Your task to perform on an android device: open app "Flipkart Online Shopping App" (install if not already installed) Image 0: 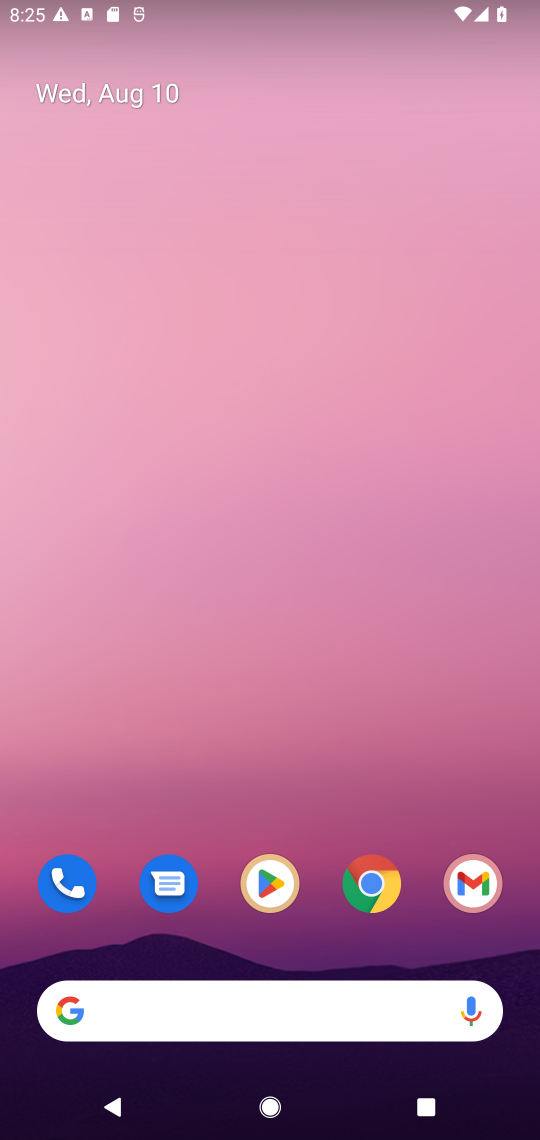
Step 0: drag from (305, 953) to (281, 200)
Your task to perform on an android device: open app "Flipkart Online Shopping App" (install if not already installed) Image 1: 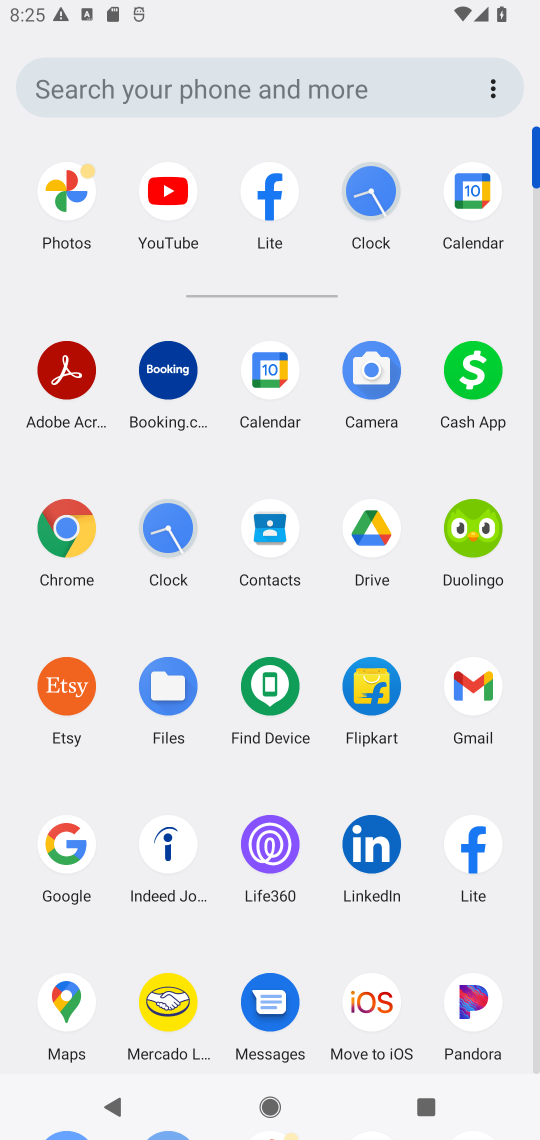
Step 1: drag from (237, 896) to (234, 367)
Your task to perform on an android device: open app "Flipkart Online Shopping App" (install if not already installed) Image 2: 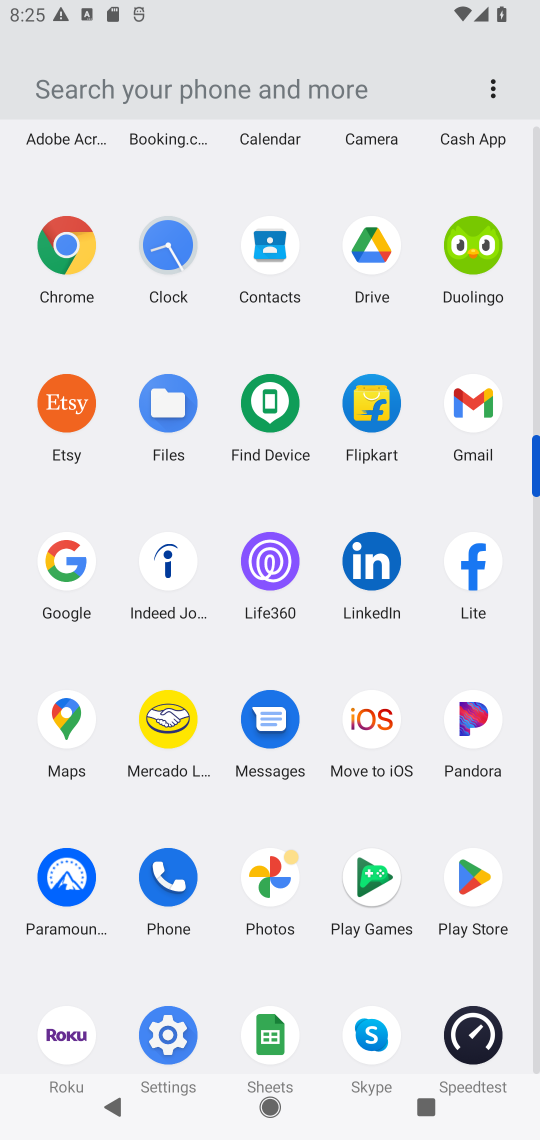
Step 2: click (471, 874)
Your task to perform on an android device: open app "Flipkart Online Shopping App" (install if not already installed) Image 3: 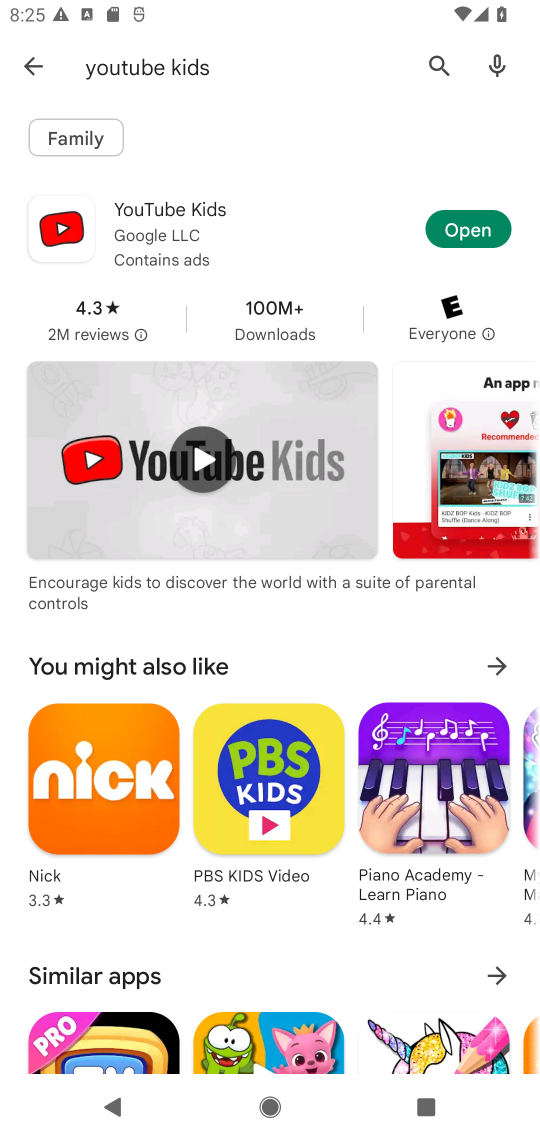
Step 3: click (439, 60)
Your task to perform on an android device: open app "Flipkart Online Shopping App" (install if not already installed) Image 4: 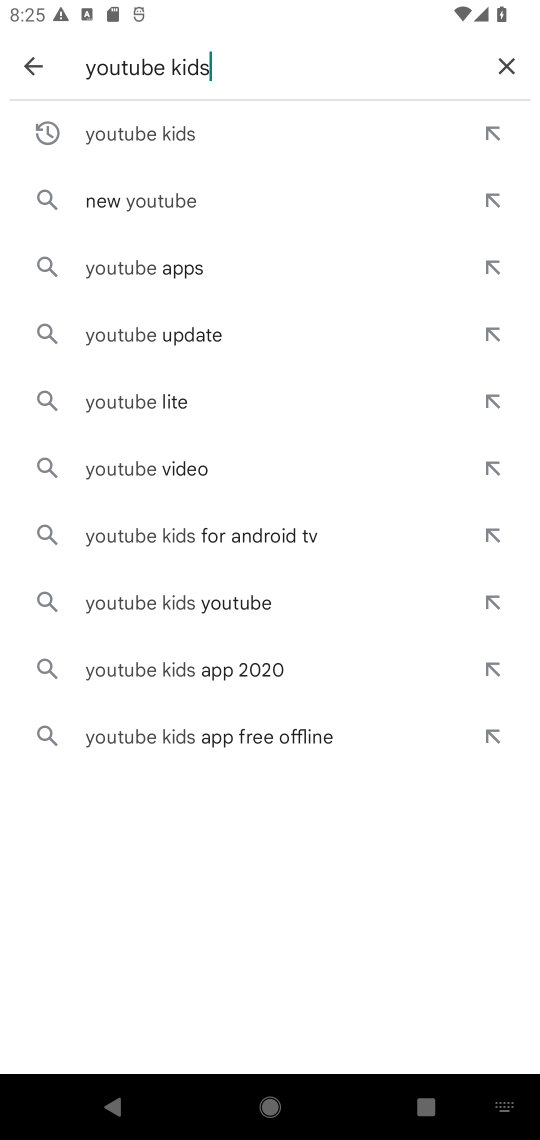
Step 4: click (506, 60)
Your task to perform on an android device: open app "Flipkart Online Shopping App" (install if not already installed) Image 5: 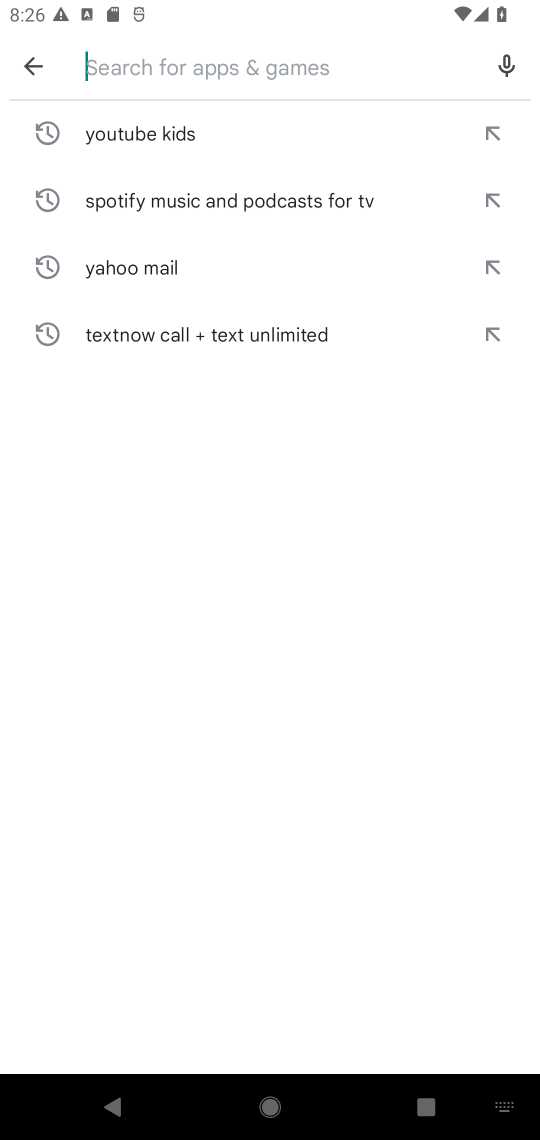
Step 5: type "Flipkart Online Shopping App"
Your task to perform on an android device: open app "Flipkart Online Shopping App" (install if not already installed) Image 6: 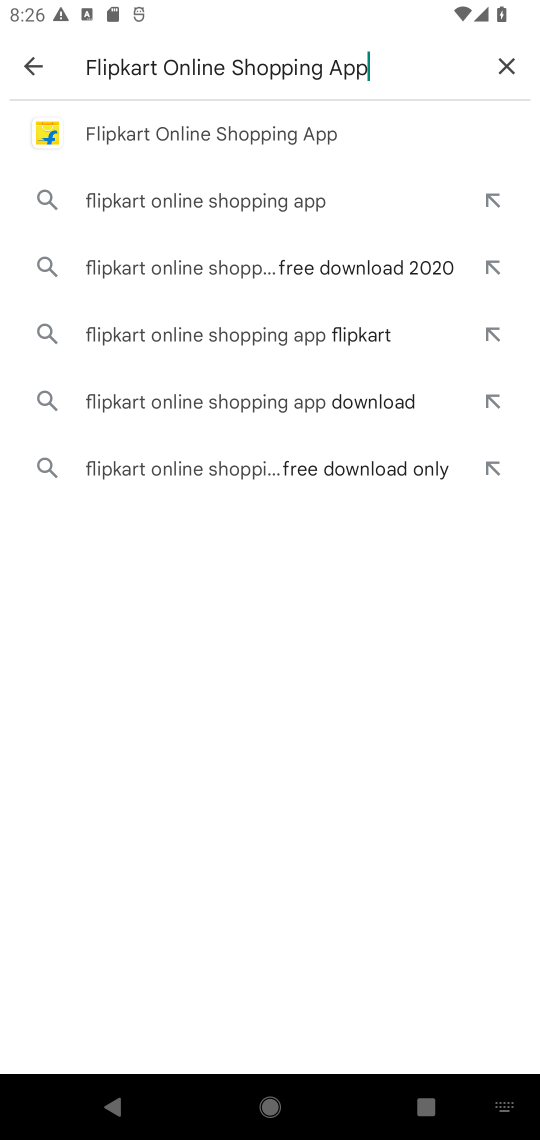
Step 6: click (240, 131)
Your task to perform on an android device: open app "Flipkart Online Shopping App" (install if not already installed) Image 7: 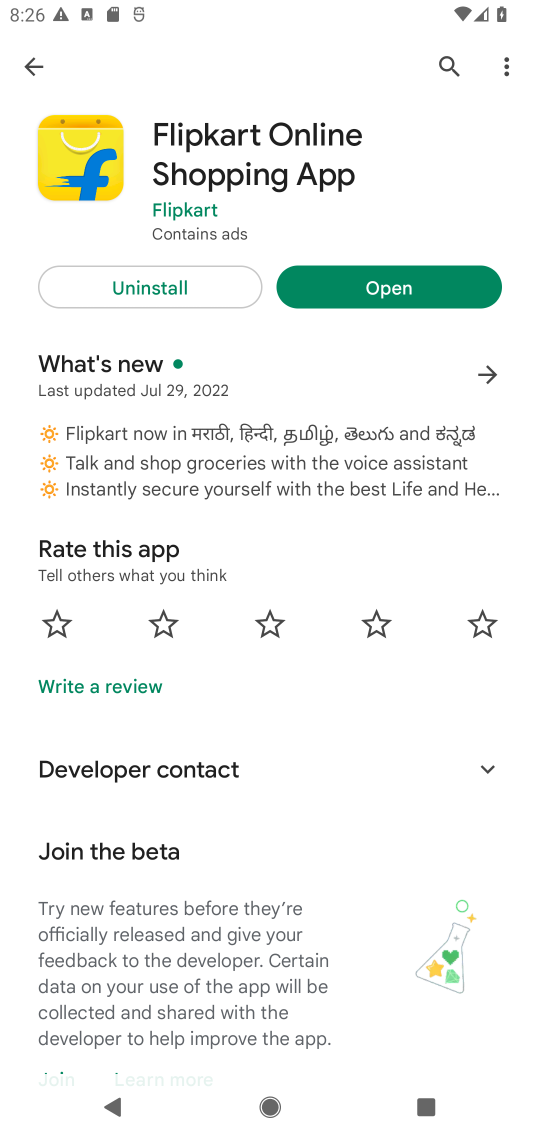
Step 7: click (364, 281)
Your task to perform on an android device: open app "Flipkart Online Shopping App" (install if not already installed) Image 8: 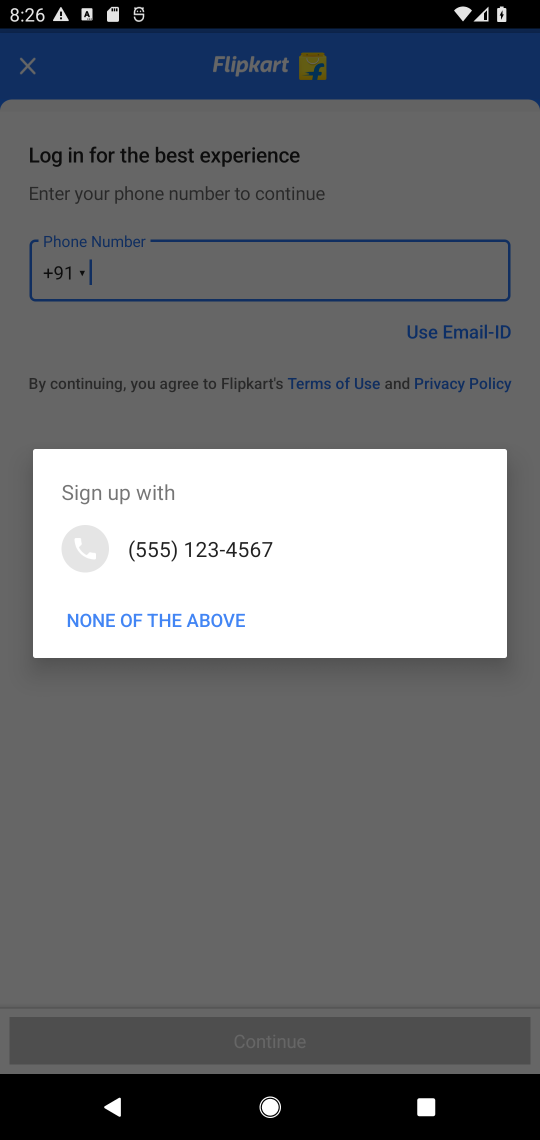
Step 8: task complete